Your task to perform on an android device: Open calendar and show me the second week of next month Image 0: 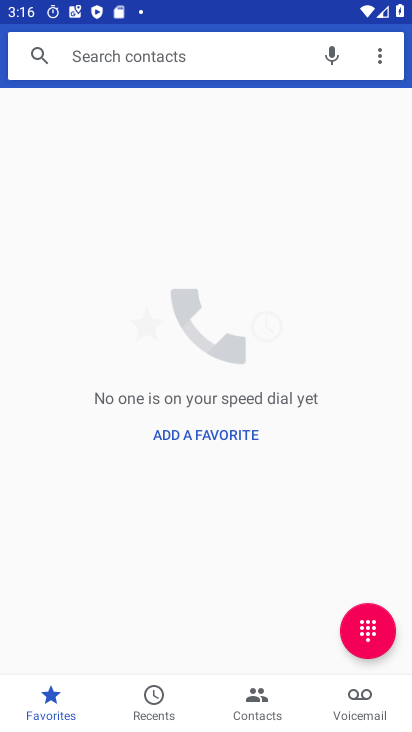
Step 0: press home button
Your task to perform on an android device: Open calendar and show me the second week of next month Image 1: 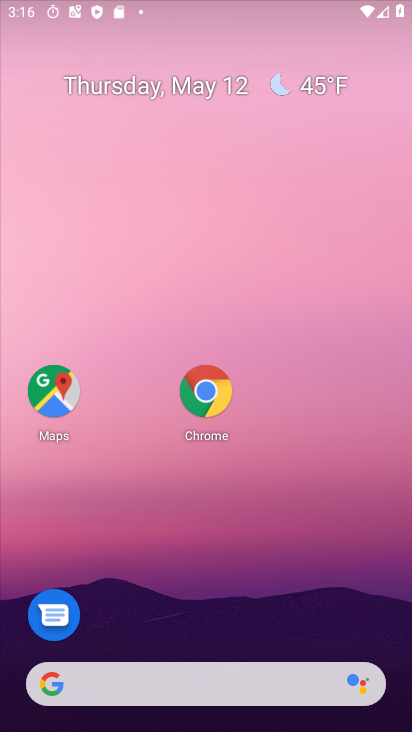
Step 1: drag from (200, 583) to (226, 162)
Your task to perform on an android device: Open calendar and show me the second week of next month Image 2: 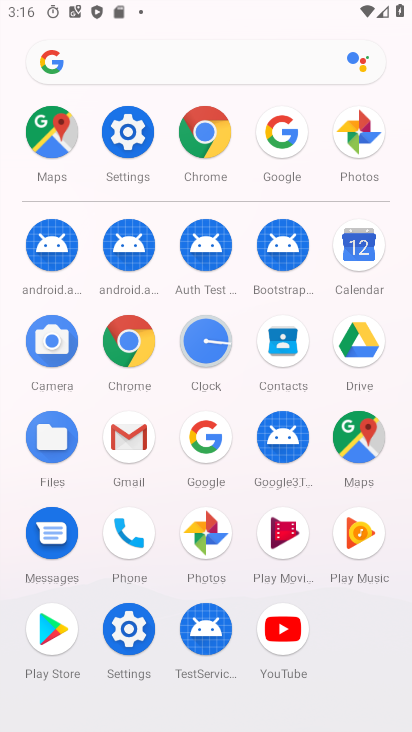
Step 2: click (359, 248)
Your task to perform on an android device: Open calendar and show me the second week of next month Image 3: 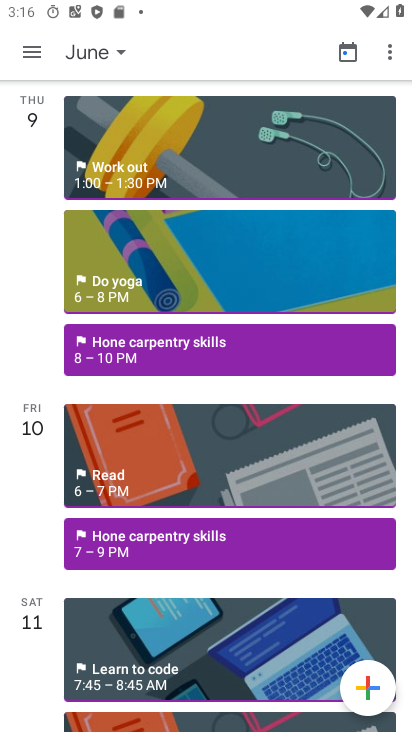
Step 3: click (115, 47)
Your task to perform on an android device: Open calendar and show me the second week of next month Image 4: 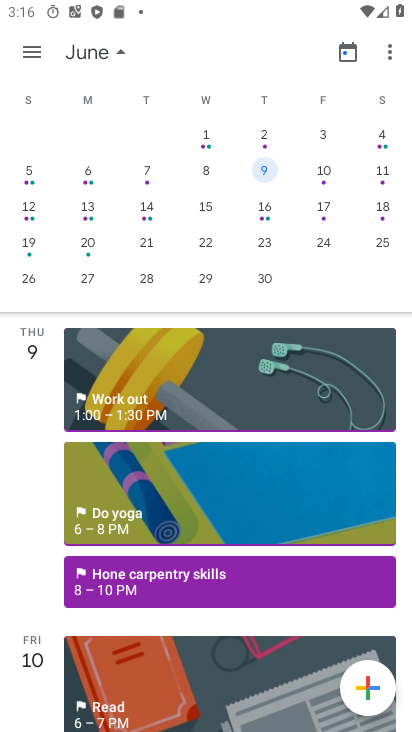
Step 4: task complete